Your task to perform on an android device: Turn on the flashlight Image 0: 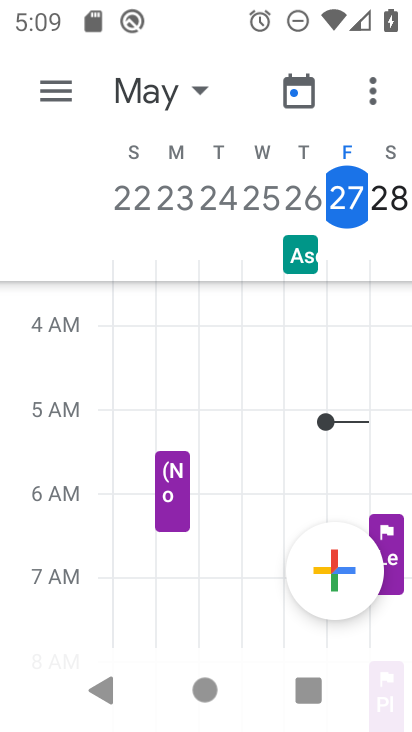
Step 0: press home button
Your task to perform on an android device: Turn on the flashlight Image 1: 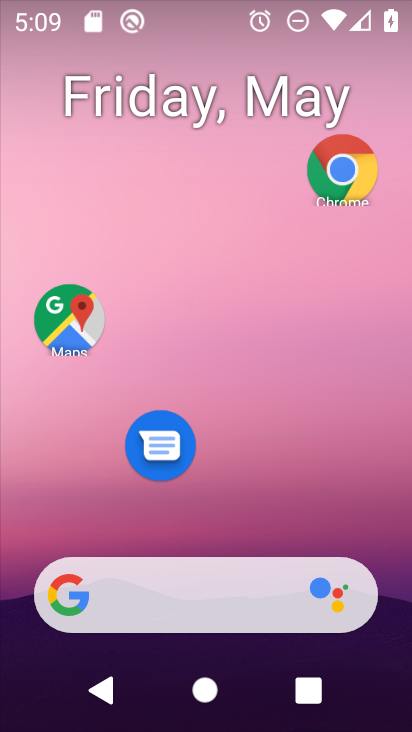
Step 1: task complete